Your task to perform on an android device: check data usage Image 0: 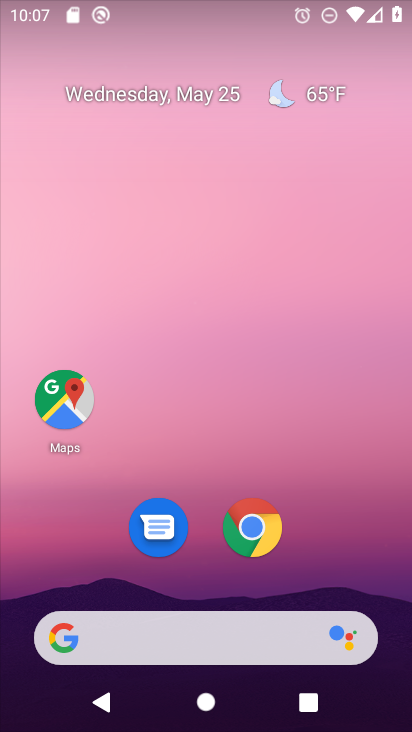
Step 0: drag from (337, 553) to (290, 266)
Your task to perform on an android device: check data usage Image 1: 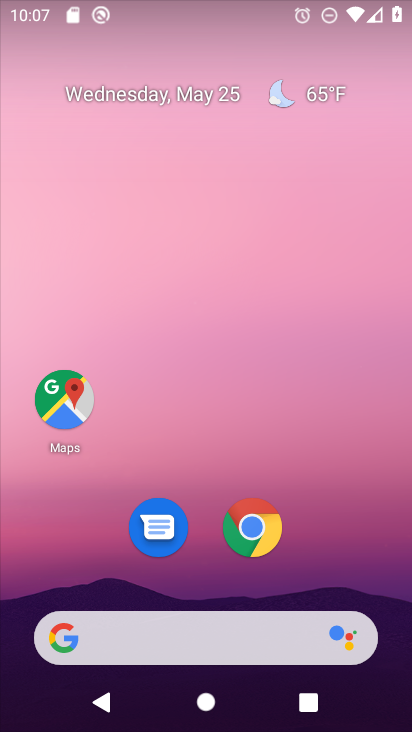
Step 1: drag from (317, 556) to (244, 115)
Your task to perform on an android device: check data usage Image 2: 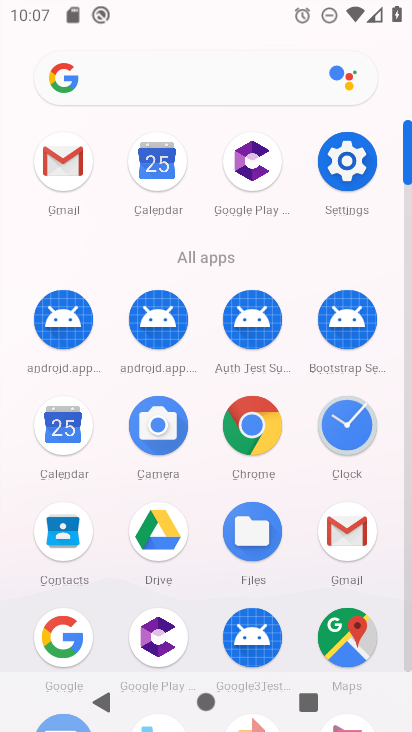
Step 2: click (346, 161)
Your task to perform on an android device: check data usage Image 3: 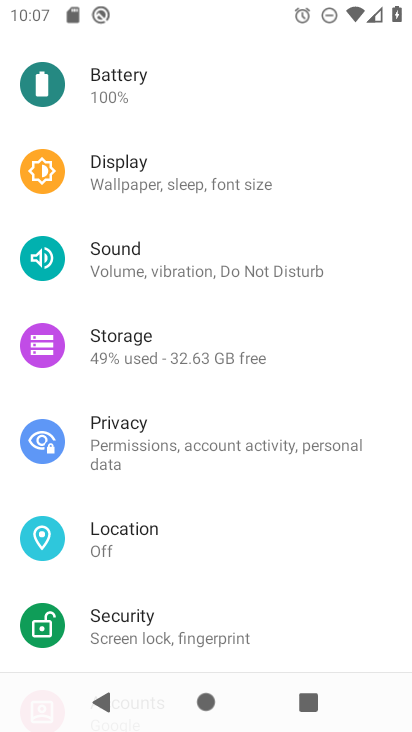
Step 3: drag from (186, 226) to (168, 336)
Your task to perform on an android device: check data usage Image 4: 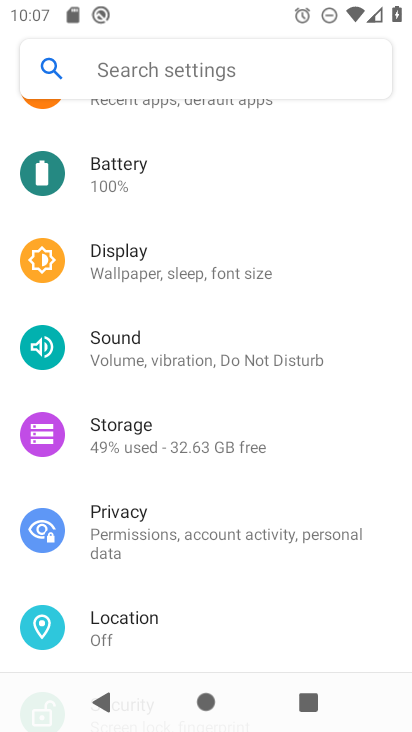
Step 4: drag from (186, 206) to (193, 320)
Your task to perform on an android device: check data usage Image 5: 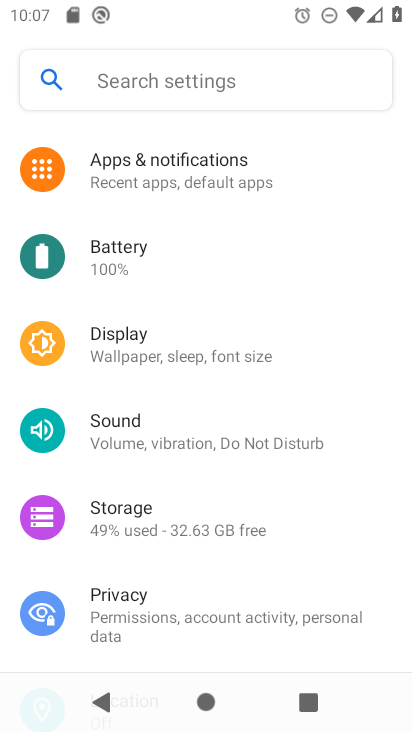
Step 5: drag from (184, 222) to (185, 316)
Your task to perform on an android device: check data usage Image 6: 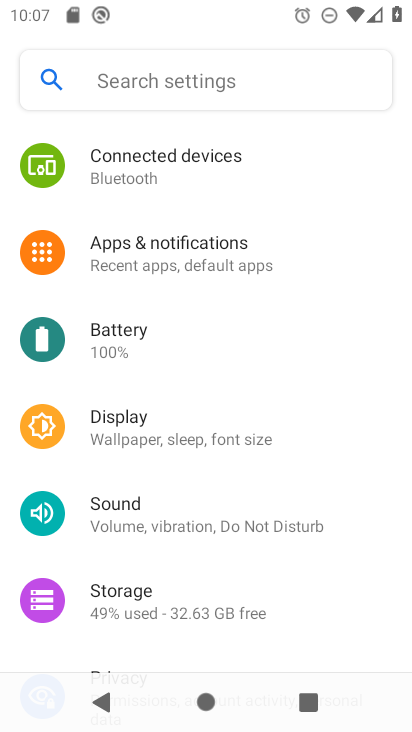
Step 6: drag from (168, 198) to (191, 312)
Your task to perform on an android device: check data usage Image 7: 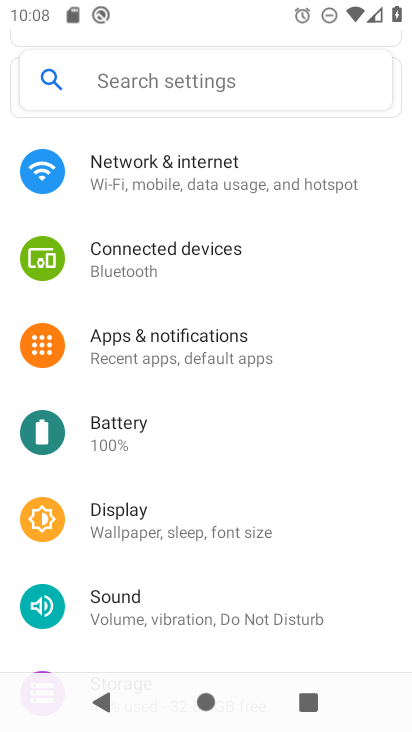
Step 7: click (157, 176)
Your task to perform on an android device: check data usage Image 8: 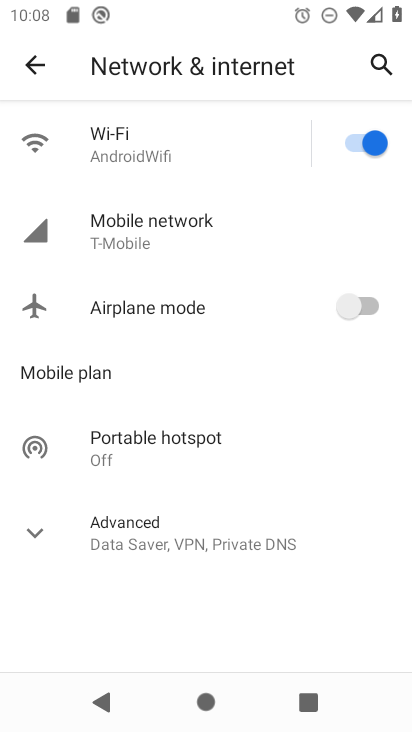
Step 8: click (147, 216)
Your task to perform on an android device: check data usage Image 9: 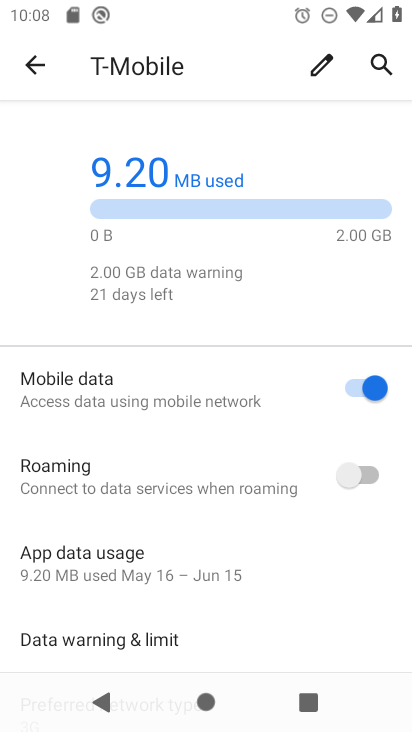
Step 9: task complete